Your task to perform on an android device: show emergency info Image 0: 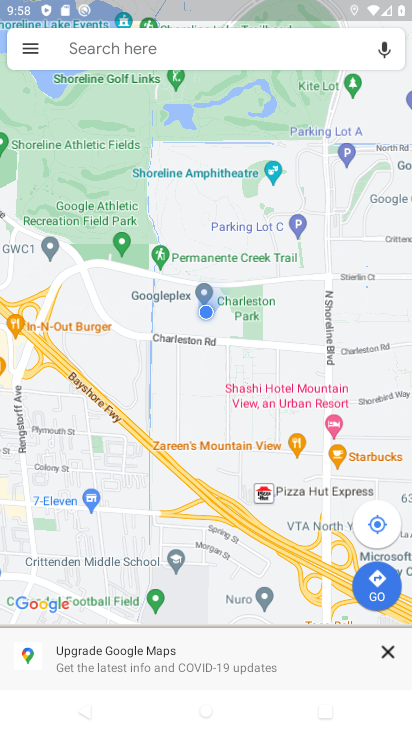
Step 0: press home button
Your task to perform on an android device: show emergency info Image 1: 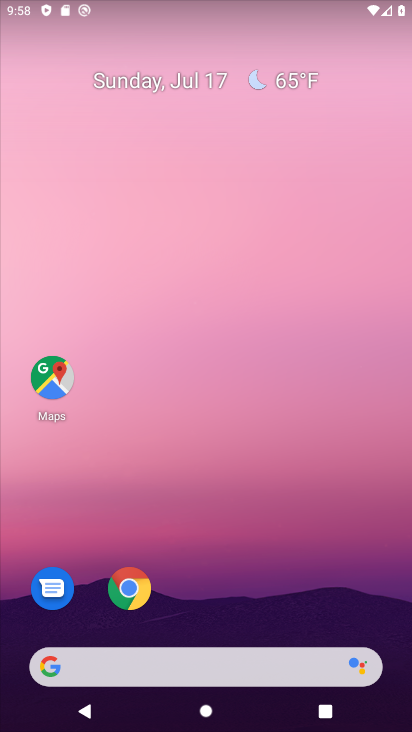
Step 1: drag from (186, 548) to (127, 0)
Your task to perform on an android device: show emergency info Image 2: 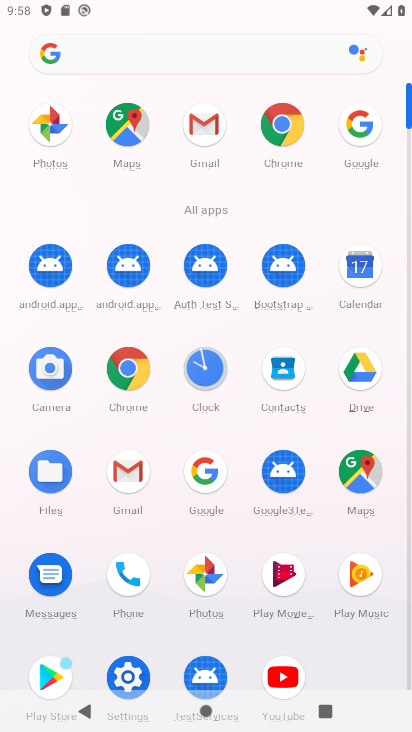
Step 2: click (134, 667)
Your task to perform on an android device: show emergency info Image 3: 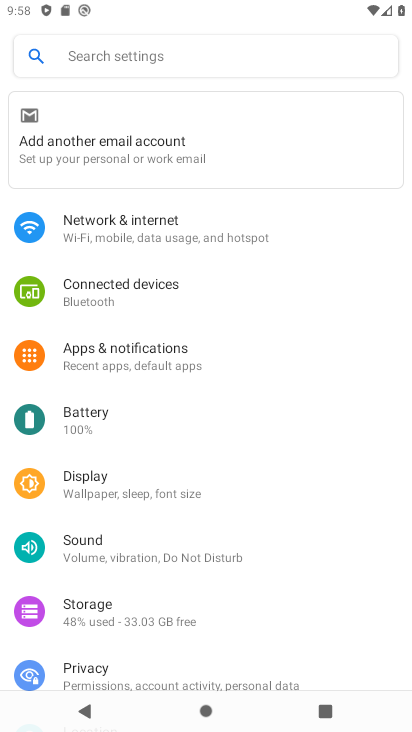
Step 3: drag from (257, 613) to (184, 169)
Your task to perform on an android device: show emergency info Image 4: 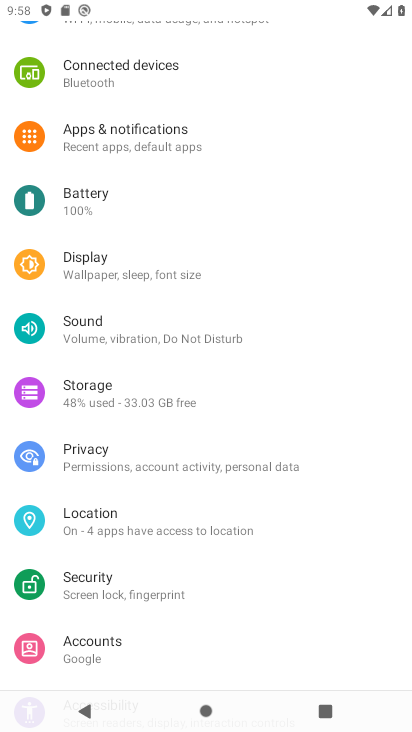
Step 4: drag from (248, 677) to (199, 348)
Your task to perform on an android device: show emergency info Image 5: 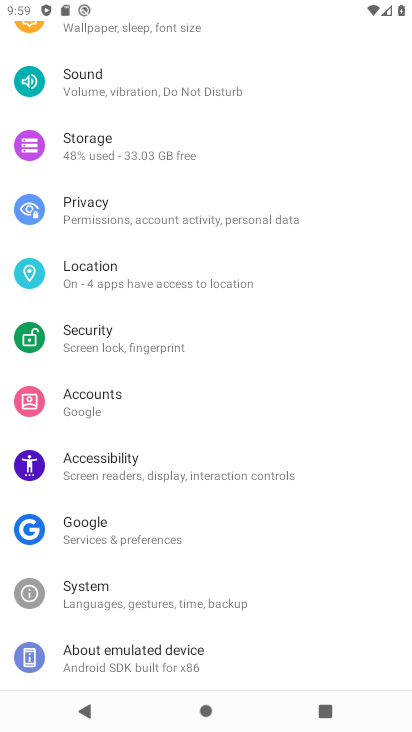
Step 5: click (137, 650)
Your task to perform on an android device: show emergency info Image 6: 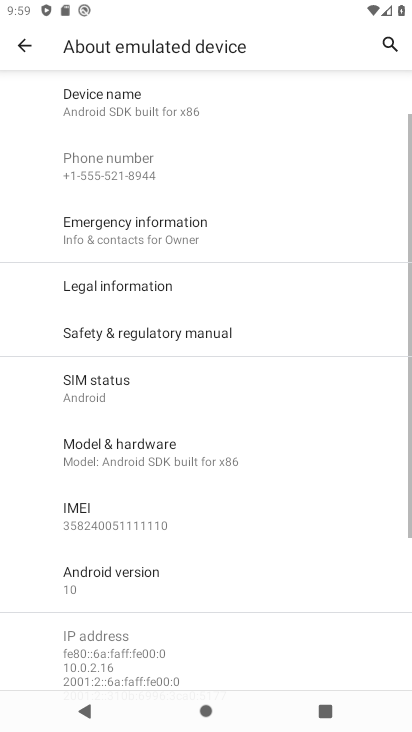
Step 6: click (149, 223)
Your task to perform on an android device: show emergency info Image 7: 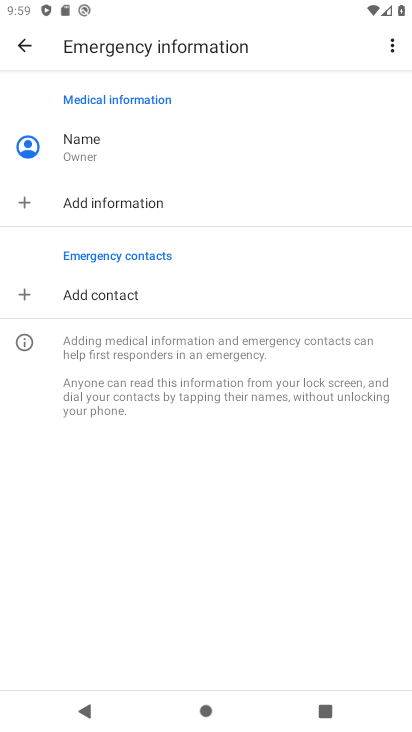
Step 7: task complete